Your task to perform on an android device: Turn on the flashlight Image 0: 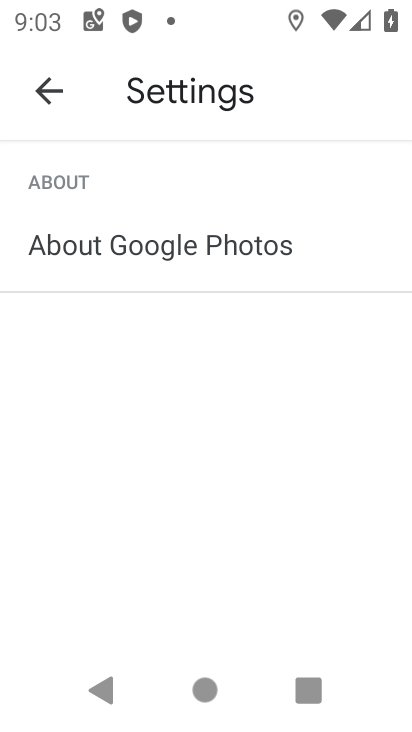
Step 0: press home button
Your task to perform on an android device: Turn on the flashlight Image 1: 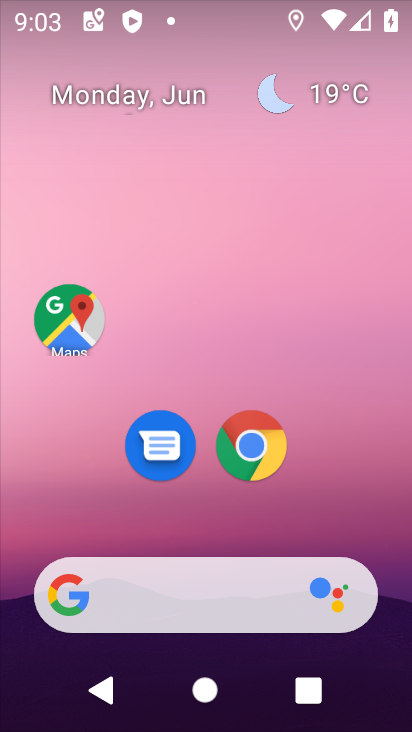
Step 1: drag from (210, 535) to (200, 27)
Your task to perform on an android device: Turn on the flashlight Image 2: 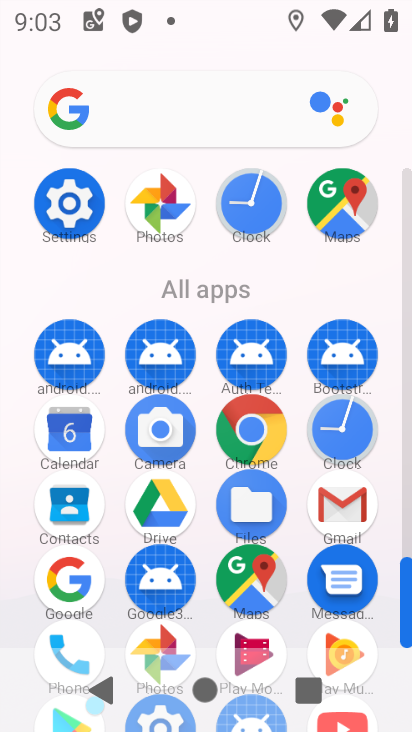
Step 2: click (67, 196)
Your task to perform on an android device: Turn on the flashlight Image 3: 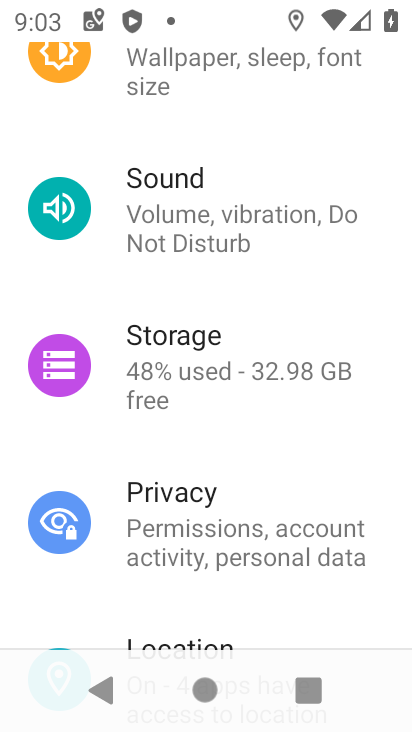
Step 3: drag from (171, 135) to (191, 597)
Your task to perform on an android device: Turn on the flashlight Image 4: 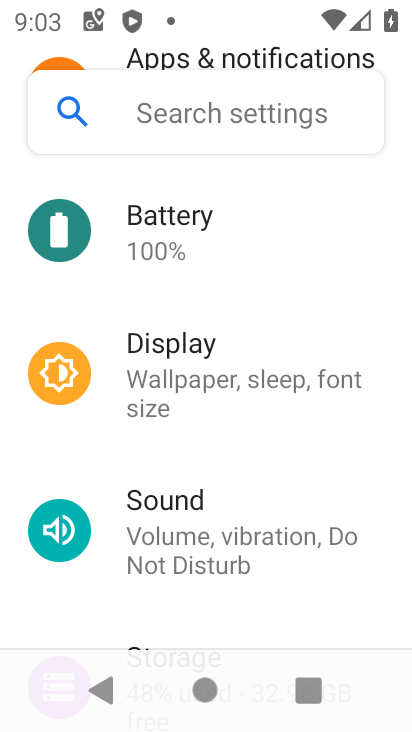
Step 4: click (187, 102)
Your task to perform on an android device: Turn on the flashlight Image 5: 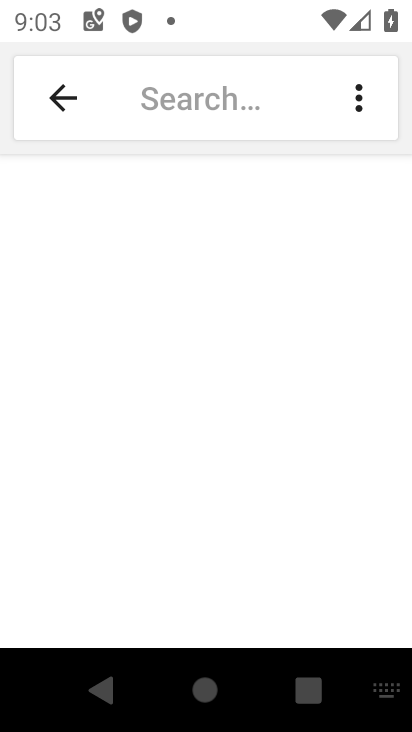
Step 5: type "flashlight"
Your task to perform on an android device: Turn on the flashlight Image 6: 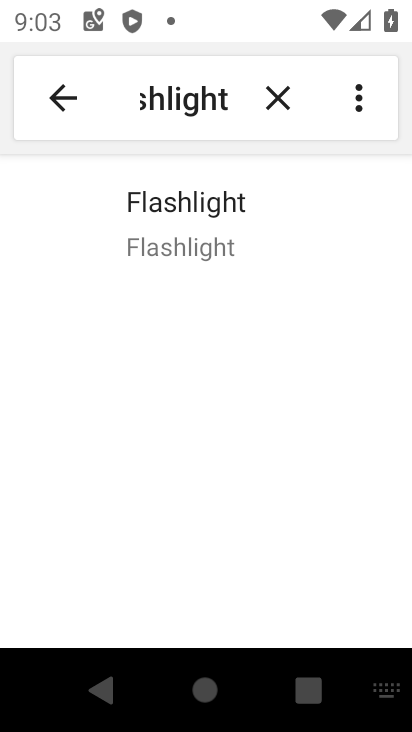
Step 6: click (162, 219)
Your task to perform on an android device: Turn on the flashlight Image 7: 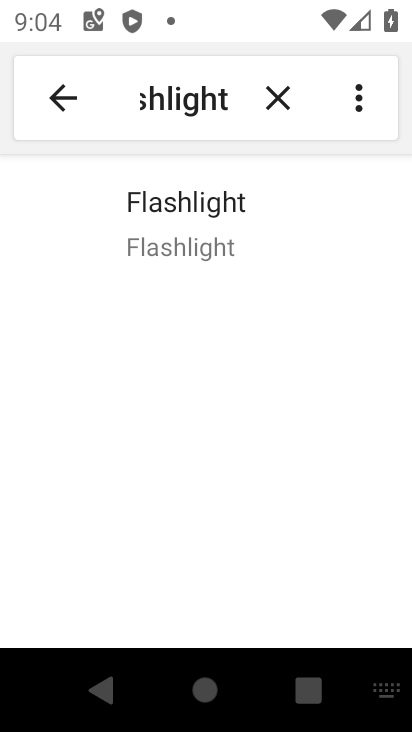
Step 7: click (102, 214)
Your task to perform on an android device: Turn on the flashlight Image 8: 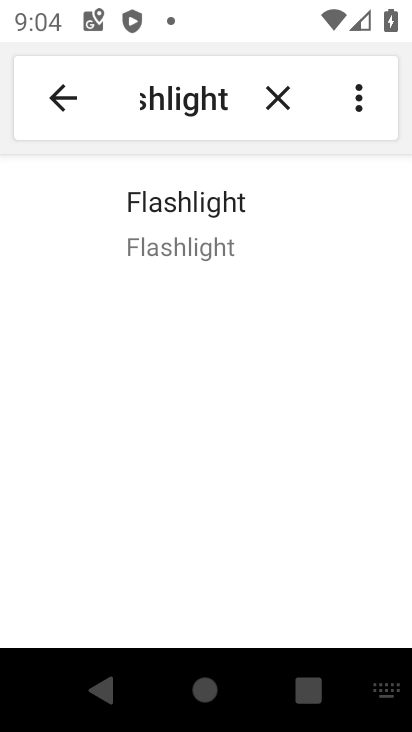
Step 8: task complete